Your task to perform on an android device: What's the weather going to be tomorrow? Image 0: 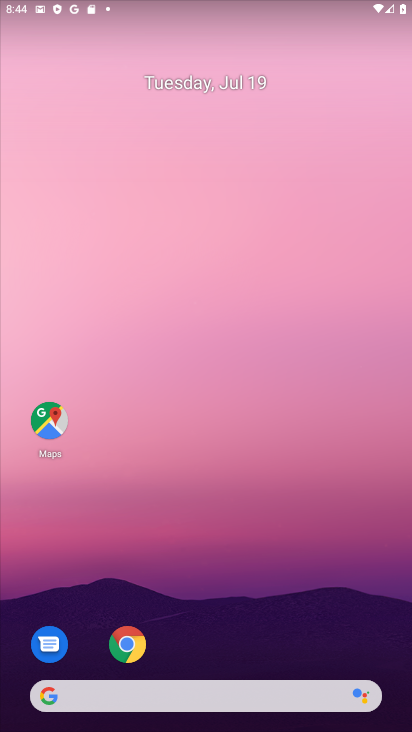
Step 0: click (256, 702)
Your task to perform on an android device: What's the weather going to be tomorrow? Image 1: 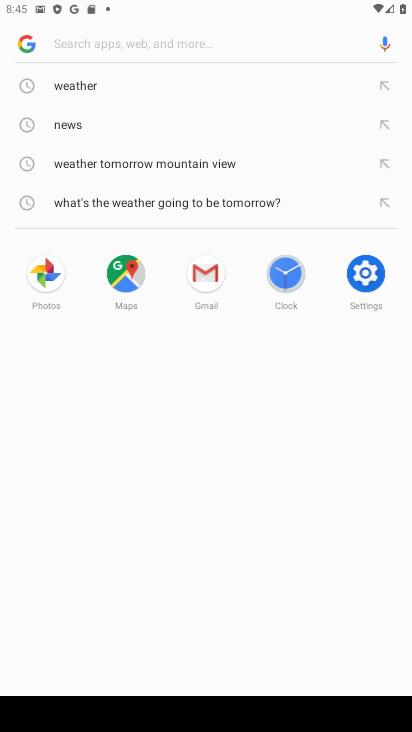
Step 1: type "what's the weather goin yo tomkrrow"
Your task to perform on an android device: What's the weather going to be tomorrow? Image 2: 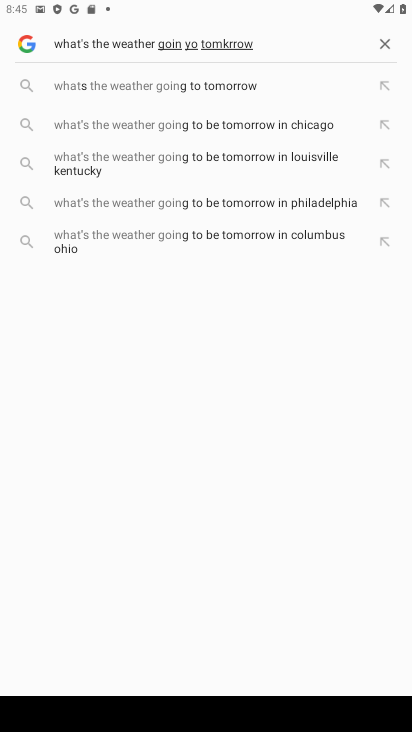
Step 2: click (233, 101)
Your task to perform on an android device: What's the weather going to be tomorrow? Image 3: 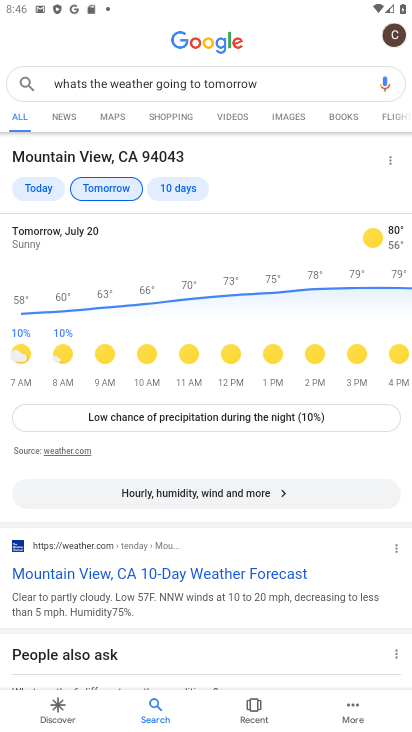
Step 3: task complete